Your task to perform on an android device: Turn on the flashlight Image 0: 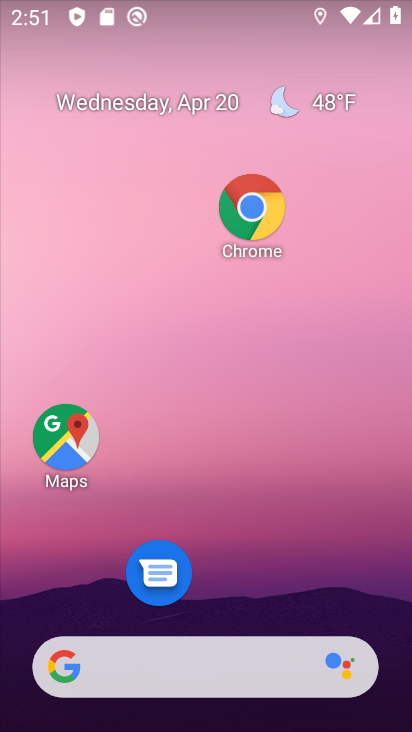
Step 0: drag from (291, 630) to (306, 360)
Your task to perform on an android device: Turn on the flashlight Image 1: 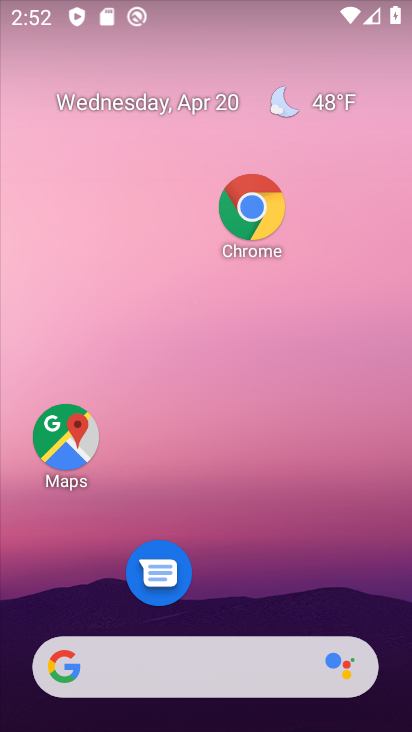
Step 1: task complete